Your task to perform on an android device: Open the web browser Image 0: 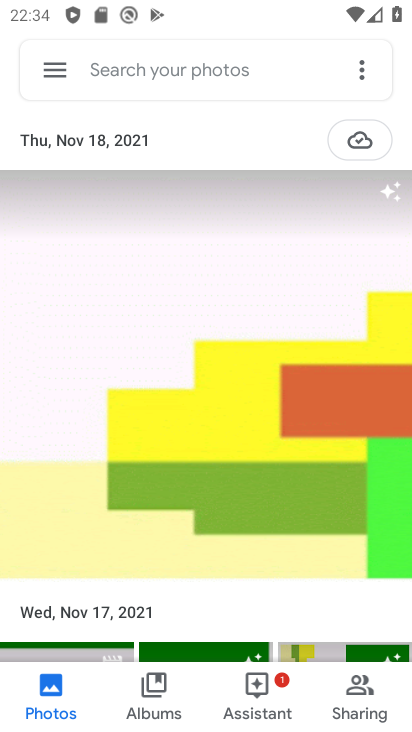
Step 0: press home button
Your task to perform on an android device: Open the web browser Image 1: 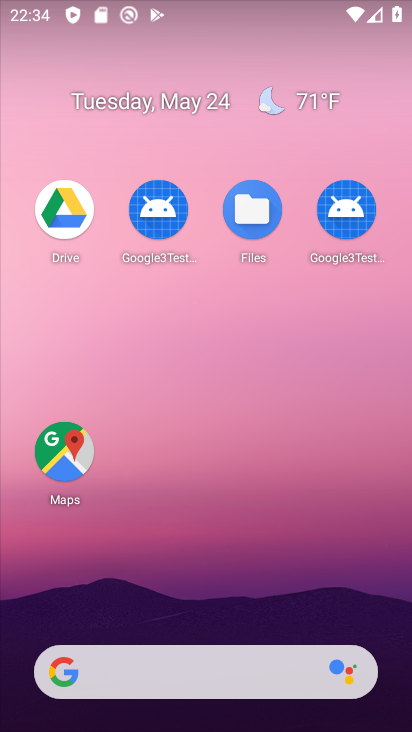
Step 1: click (266, 655)
Your task to perform on an android device: Open the web browser Image 2: 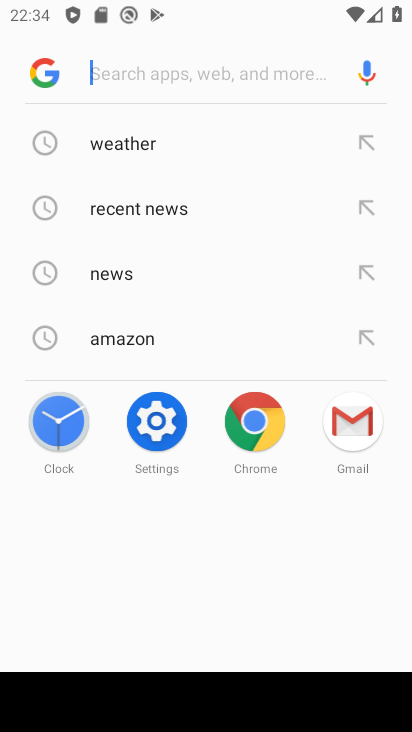
Step 2: task complete